Your task to perform on an android device: Go to internet settings Image 0: 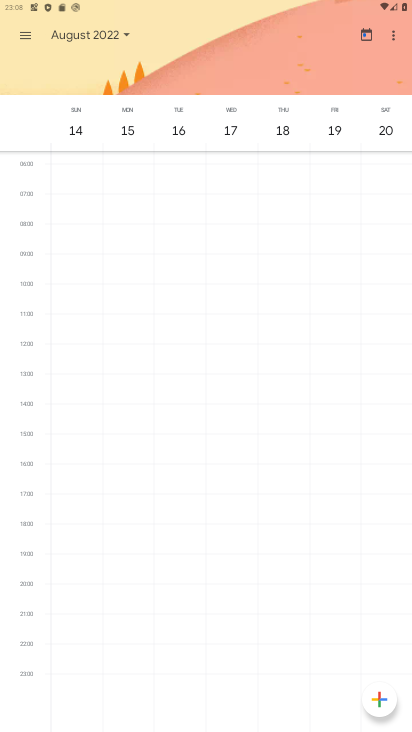
Step 0: press home button
Your task to perform on an android device: Go to internet settings Image 1: 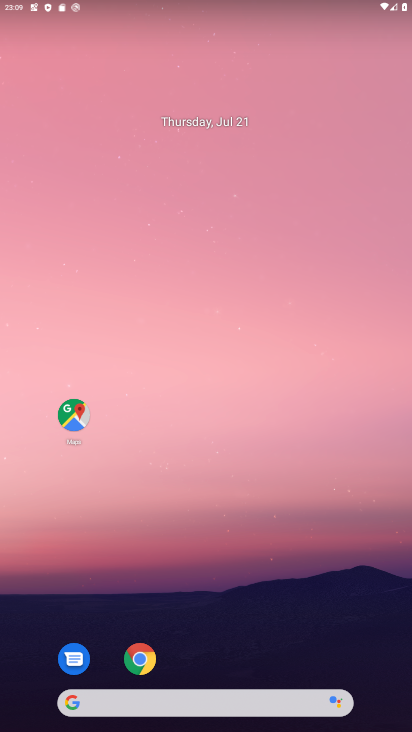
Step 1: drag from (314, 613) to (257, 73)
Your task to perform on an android device: Go to internet settings Image 2: 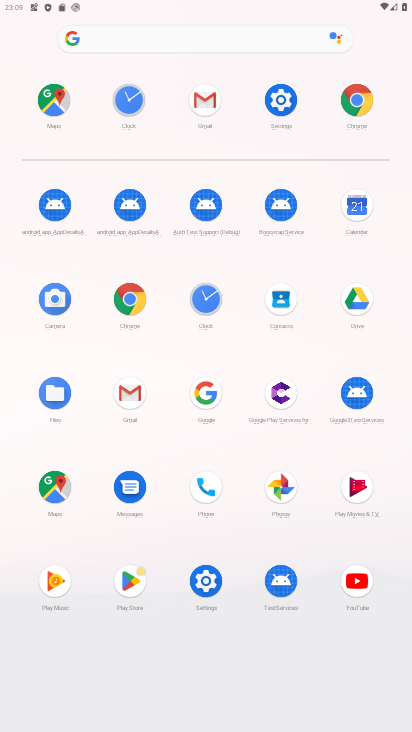
Step 2: click (284, 96)
Your task to perform on an android device: Go to internet settings Image 3: 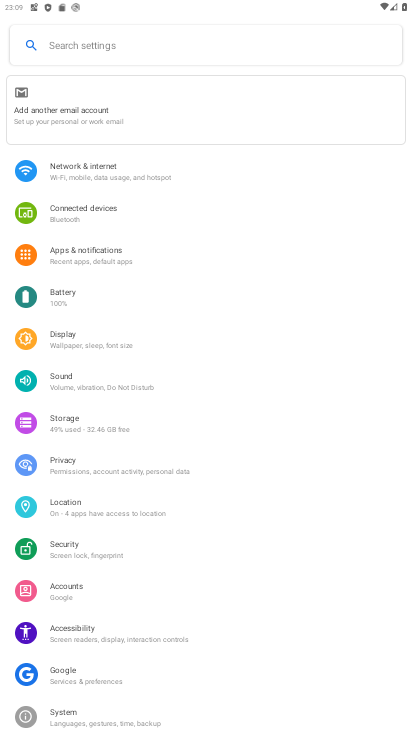
Step 3: click (98, 175)
Your task to perform on an android device: Go to internet settings Image 4: 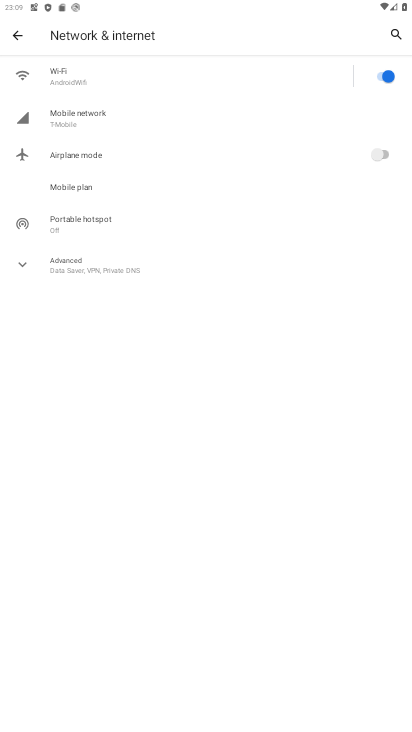
Step 4: click (41, 264)
Your task to perform on an android device: Go to internet settings Image 5: 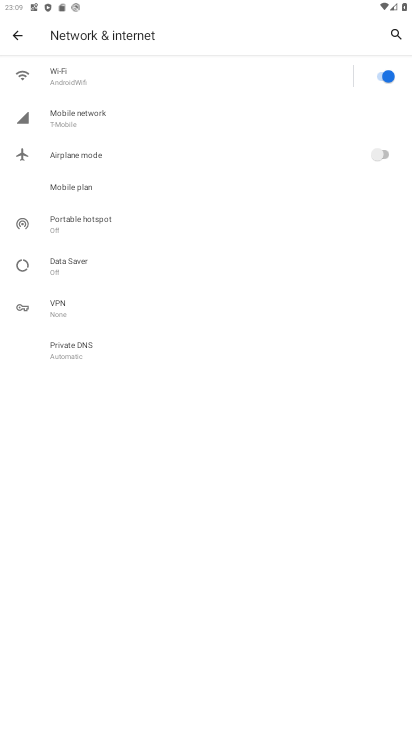
Step 5: task complete